Your task to perform on an android device: Open Google Image 0: 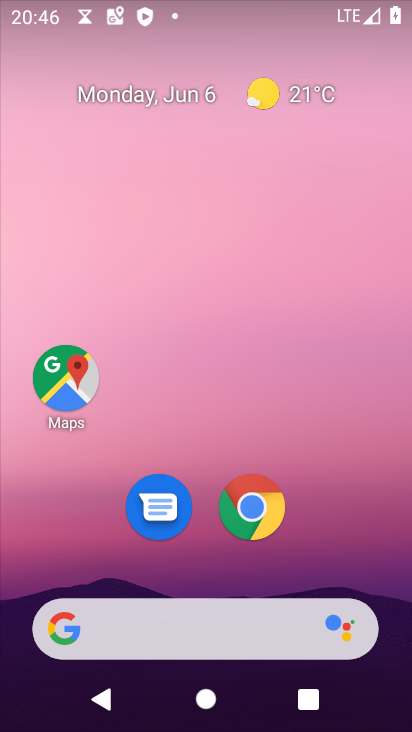
Step 0: click (180, 655)
Your task to perform on an android device: Open Google Image 1: 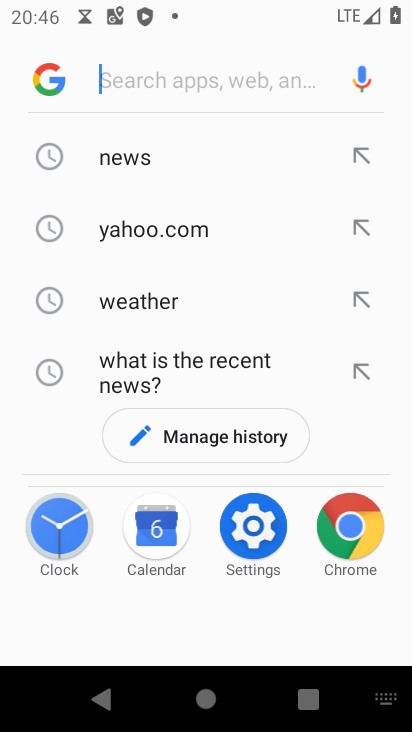
Step 1: task complete